Your task to perform on an android device: stop showing notifications on the lock screen Image 0: 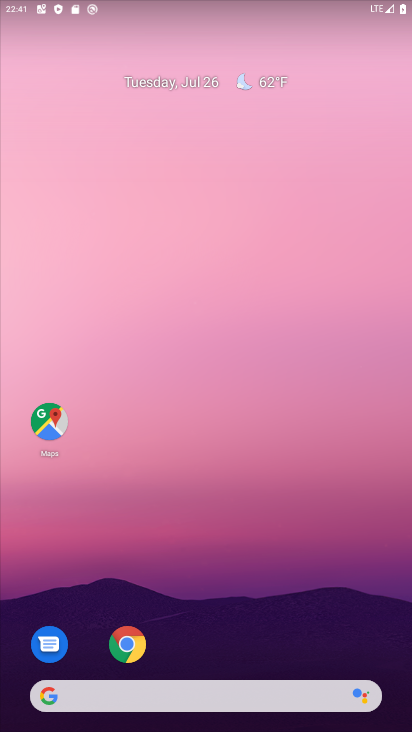
Step 0: drag from (256, 656) to (289, 189)
Your task to perform on an android device: stop showing notifications on the lock screen Image 1: 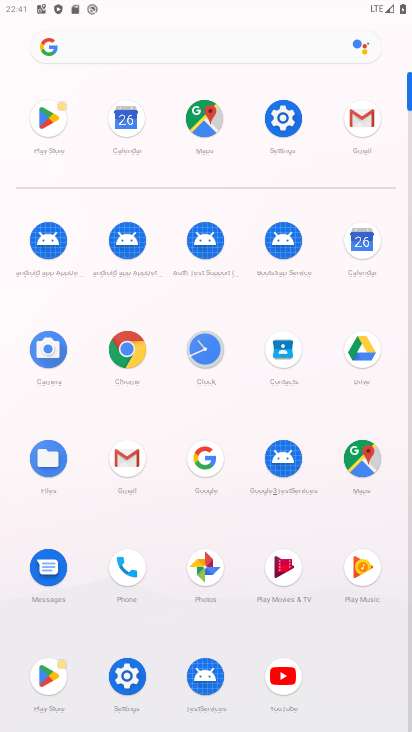
Step 1: click (285, 126)
Your task to perform on an android device: stop showing notifications on the lock screen Image 2: 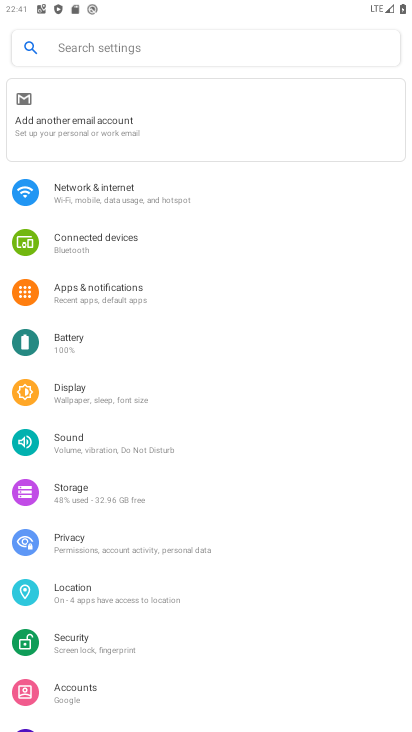
Step 2: click (79, 296)
Your task to perform on an android device: stop showing notifications on the lock screen Image 3: 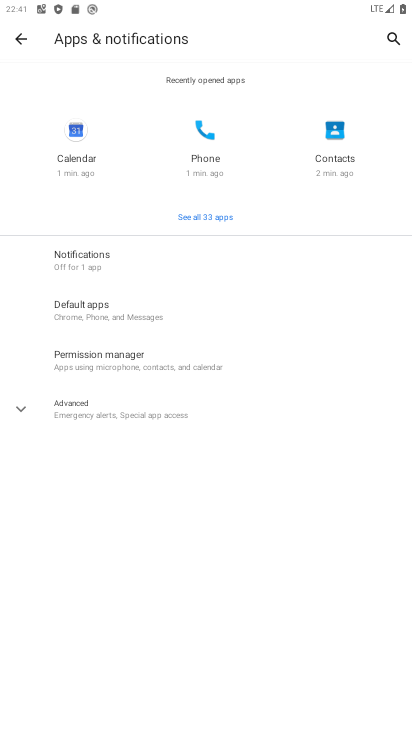
Step 3: click (77, 266)
Your task to perform on an android device: stop showing notifications on the lock screen Image 4: 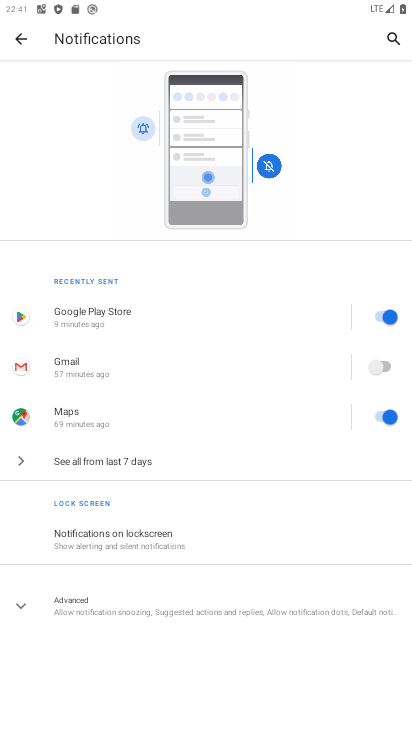
Step 4: click (89, 537)
Your task to perform on an android device: stop showing notifications on the lock screen Image 5: 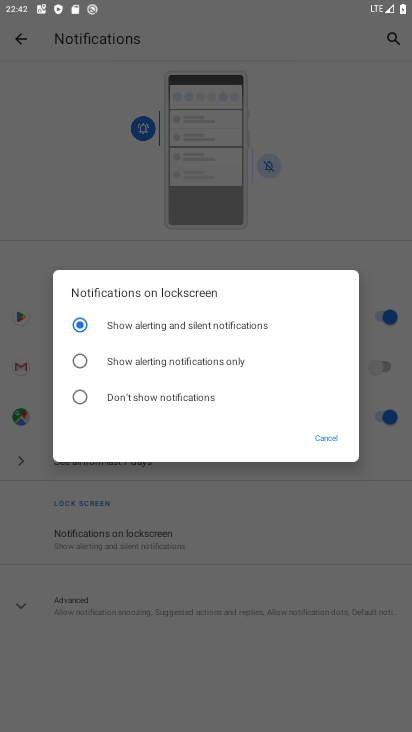
Step 5: click (76, 390)
Your task to perform on an android device: stop showing notifications on the lock screen Image 6: 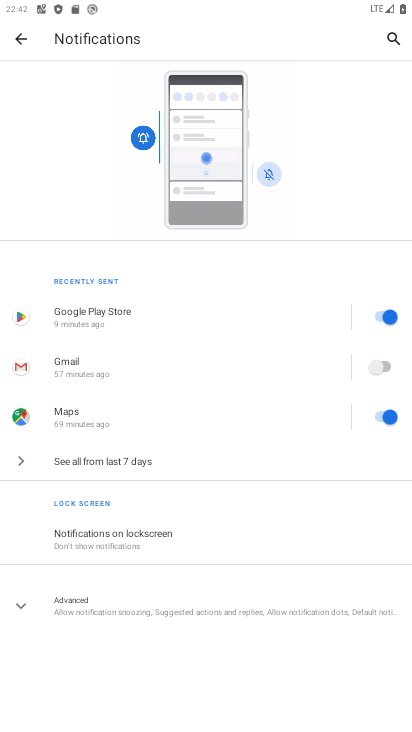
Step 6: task complete